Your task to perform on an android device: empty trash in google photos Image 0: 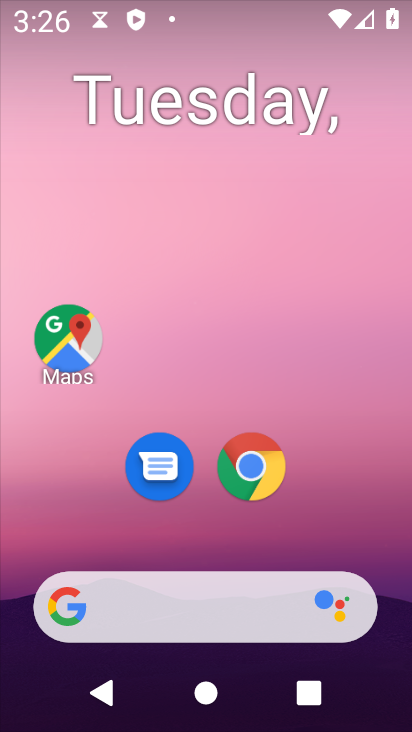
Step 0: drag from (397, 660) to (284, 19)
Your task to perform on an android device: empty trash in google photos Image 1: 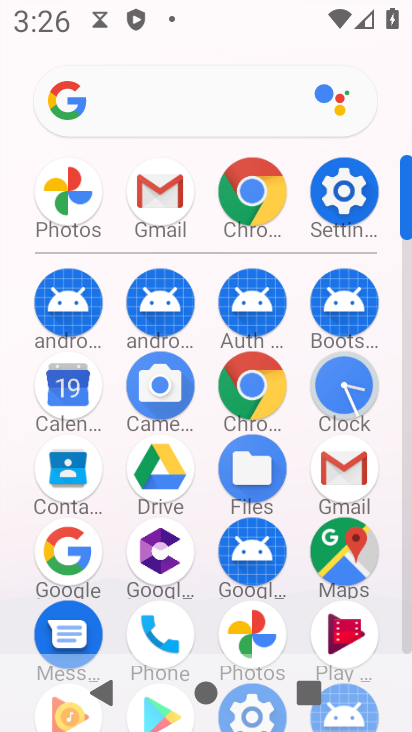
Step 1: drag from (1, 593) to (1, 207)
Your task to perform on an android device: empty trash in google photos Image 2: 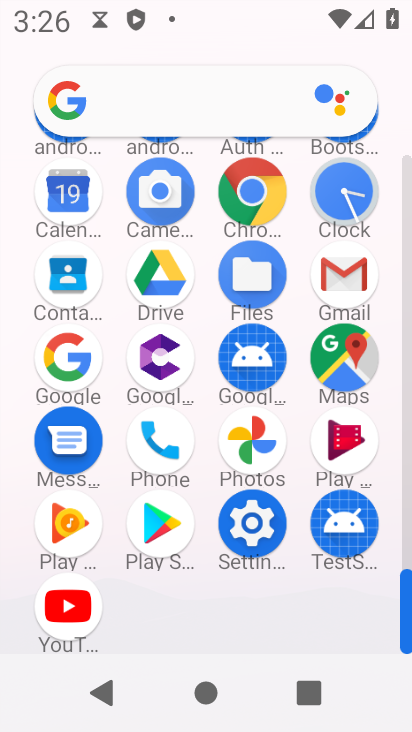
Step 2: click (249, 440)
Your task to perform on an android device: empty trash in google photos Image 3: 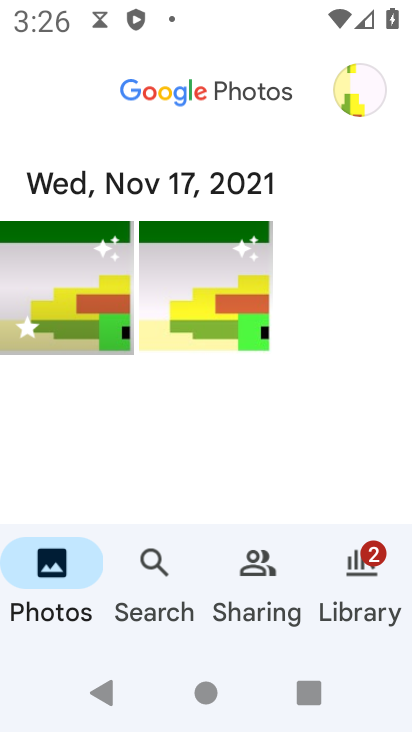
Step 3: click (361, 579)
Your task to perform on an android device: empty trash in google photos Image 4: 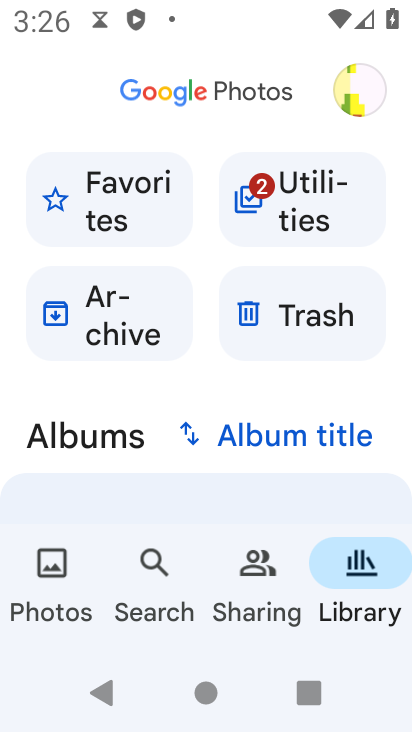
Step 4: click (310, 309)
Your task to perform on an android device: empty trash in google photos Image 5: 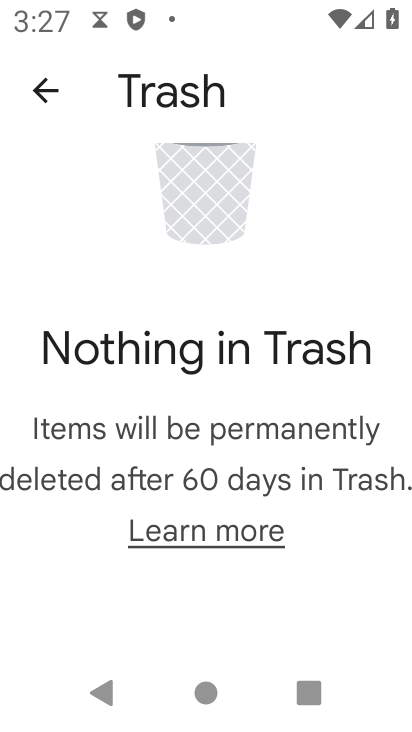
Step 5: task complete